Your task to perform on an android device: Do I have any events tomorrow? Image 0: 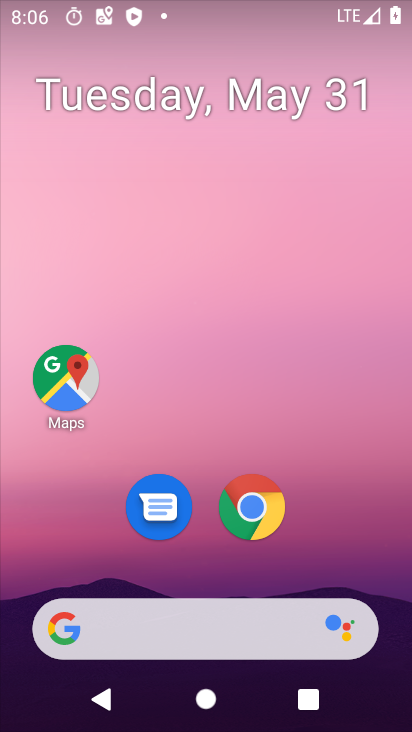
Step 0: press home button
Your task to perform on an android device: Do I have any events tomorrow? Image 1: 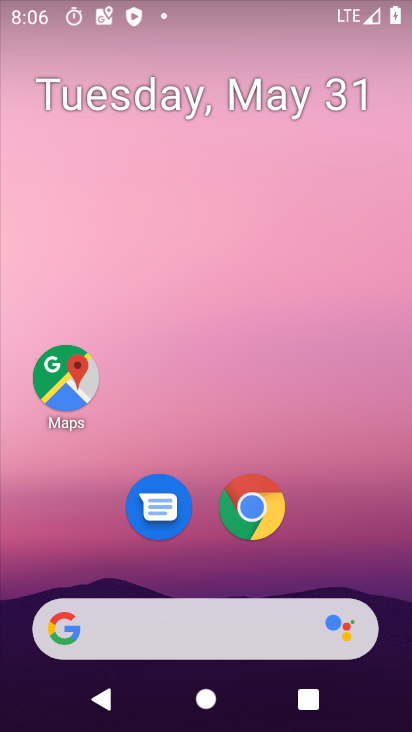
Step 1: drag from (67, 590) to (324, 119)
Your task to perform on an android device: Do I have any events tomorrow? Image 2: 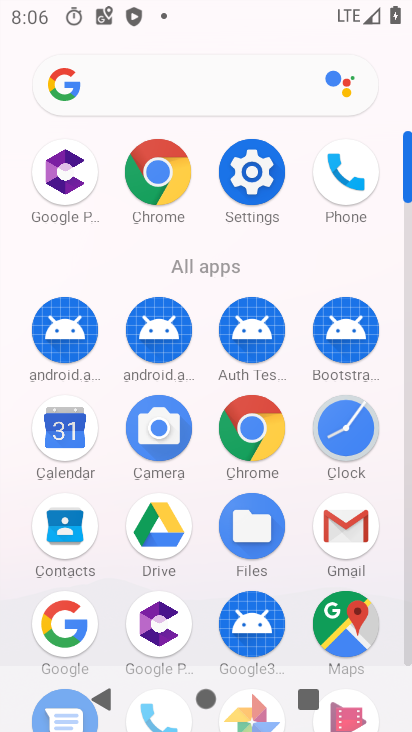
Step 2: click (60, 436)
Your task to perform on an android device: Do I have any events tomorrow? Image 3: 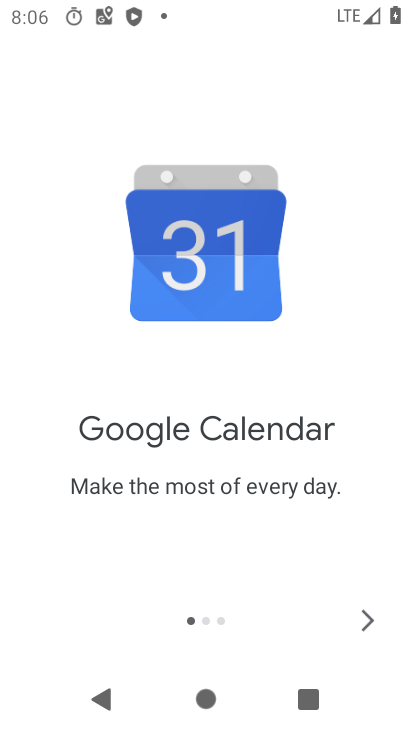
Step 3: click (368, 625)
Your task to perform on an android device: Do I have any events tomorrow? Image 4: 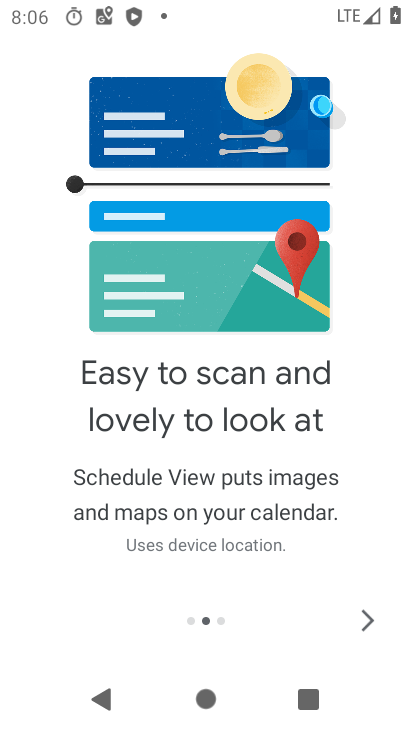
Step 4: click (368, 625)
Your task to perform on an android device: Do I have any events tomorrow? Image 5: 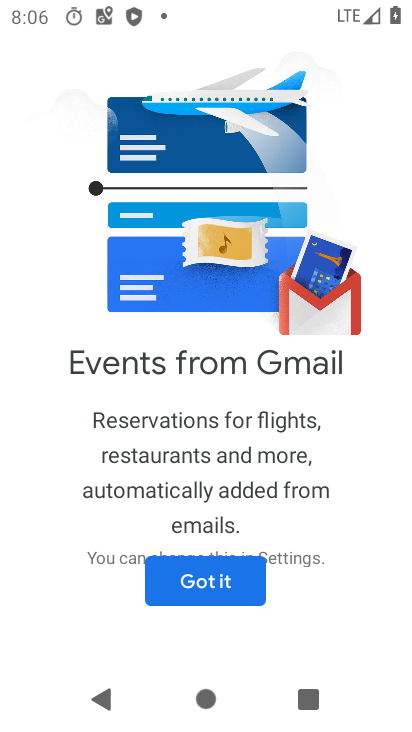
Step 5: click (189, 579)
Your task to perform on an android device: Do I have any events tomorrow? Image 6: 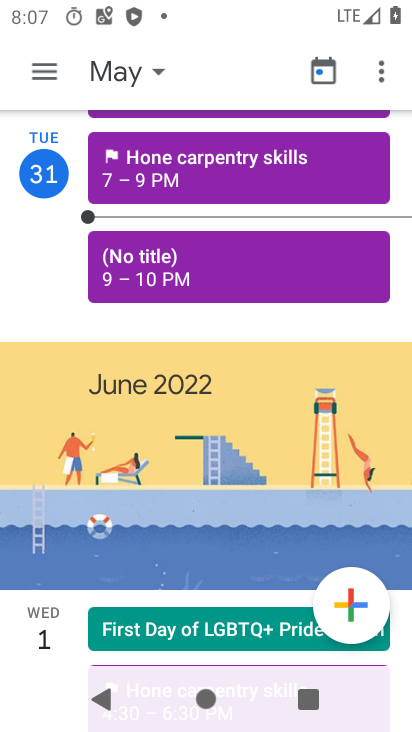
Step 6: click (132, 66)
Your task to perform on an android device: Do I have any events tomorrow? Image 7: 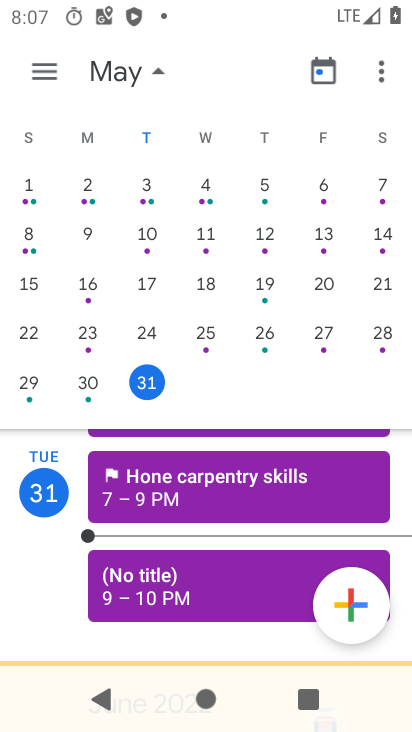
Step 7: task complete